Your task to perform on an android device: Clear all items from cart on target.com. Image 0: 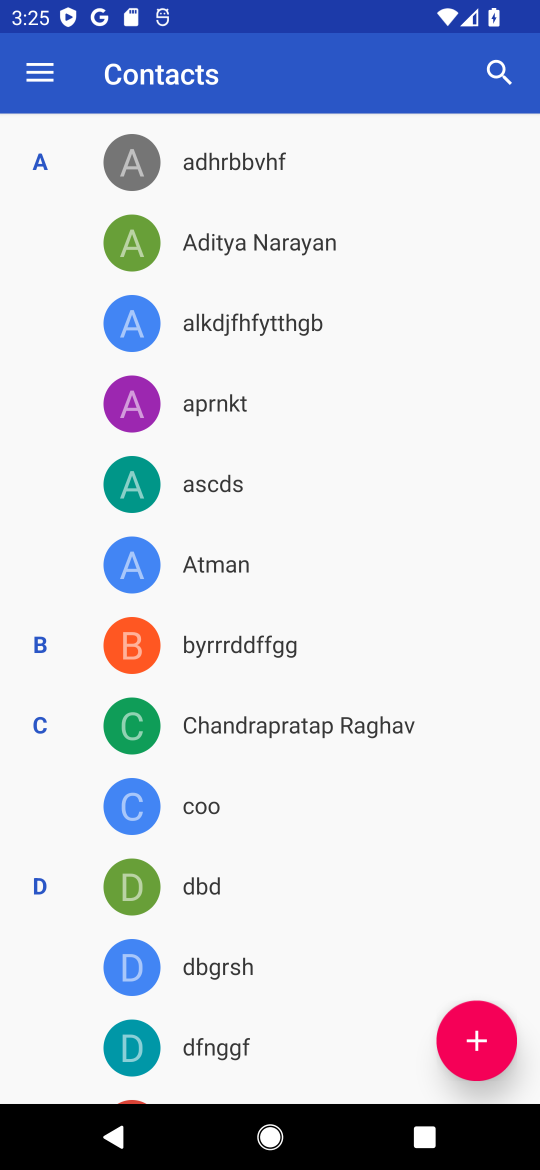
Step 0: press home button
Your task to perform on an android device: Clear all items from cart on target.com. Image 1: 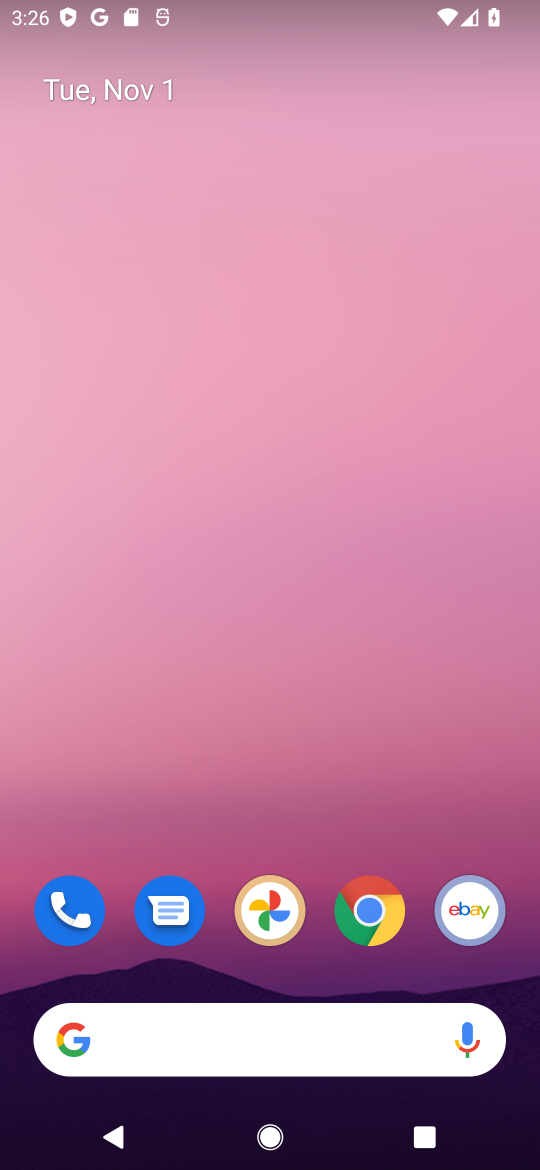
Step 1: click (237, 1044)
Your task to perform on an android device: Clear all items from cart on target.com. Image 2: 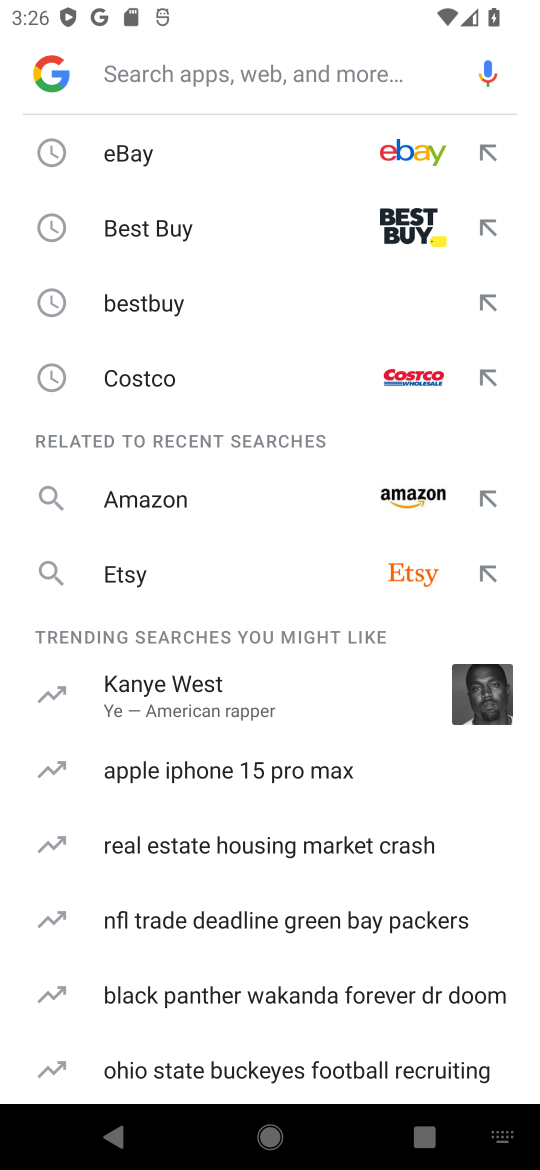
Step 2: type "target.com"
Your task to perform on an android device: Clear all items from cart on target.com. Image 3: 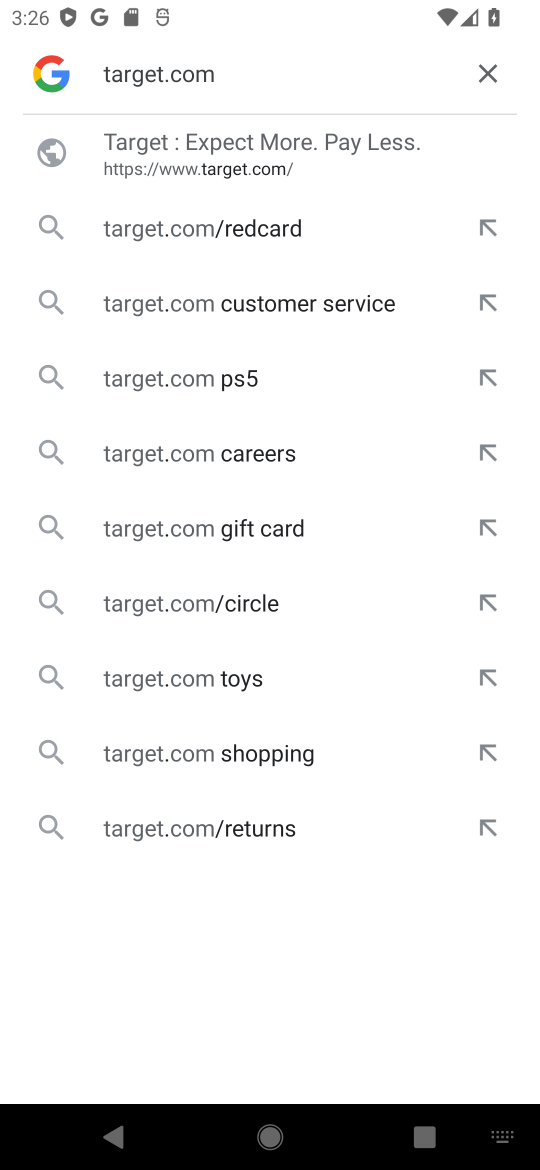
Step 3: click (208, 158)
Your task to perform on an android device: Clear all items from cart on target.com. Image 4: 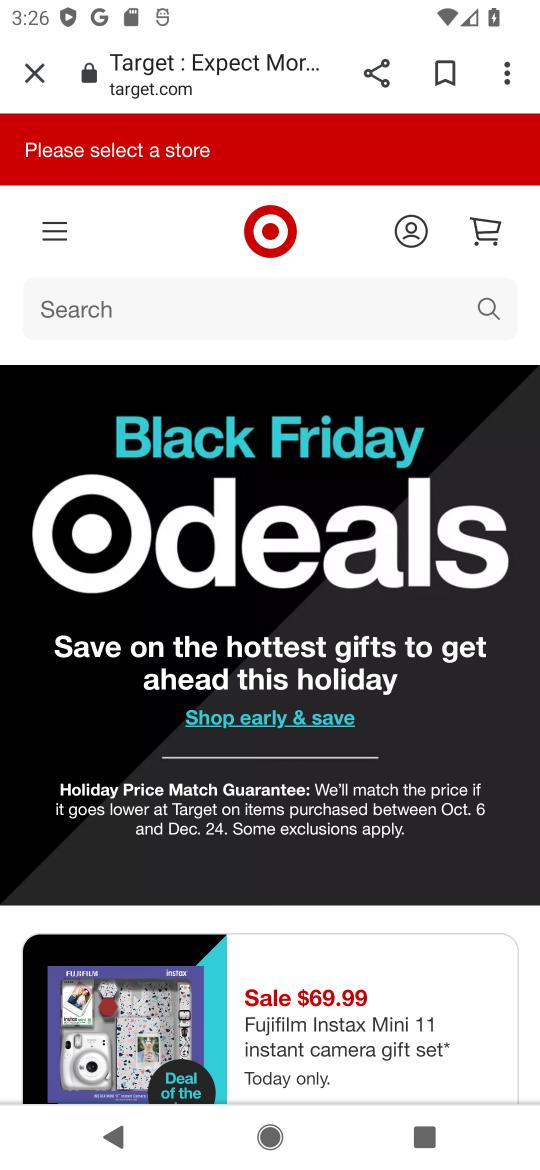
Step 4: click (465, 224)
Your task to perform on an android device: Clear all items from cart on target.com. Image 5: 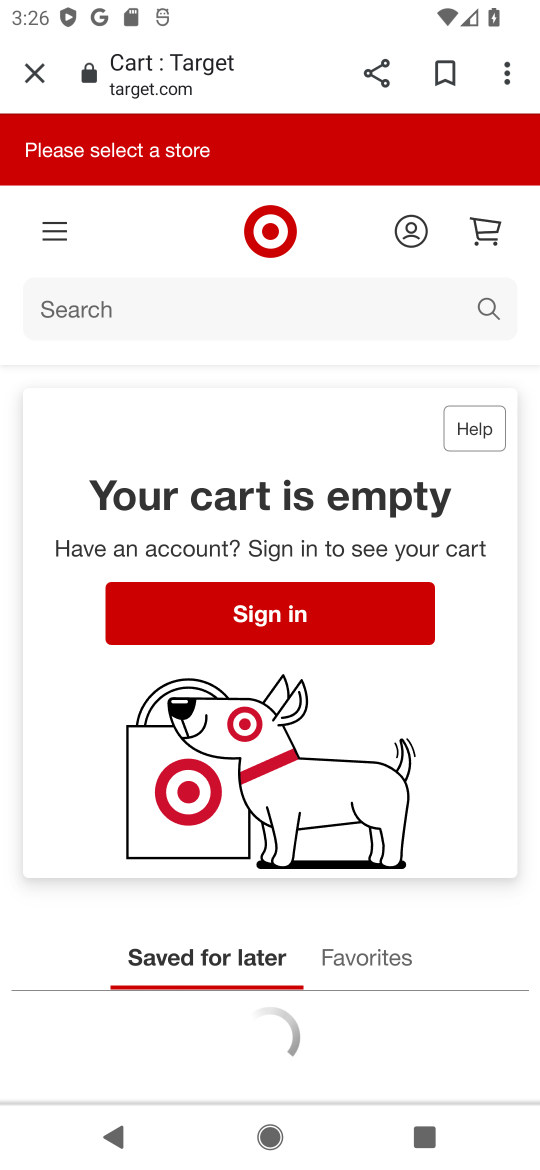
Step 5: task complete